Your task to perform on an android device: Go to Google Image 0: 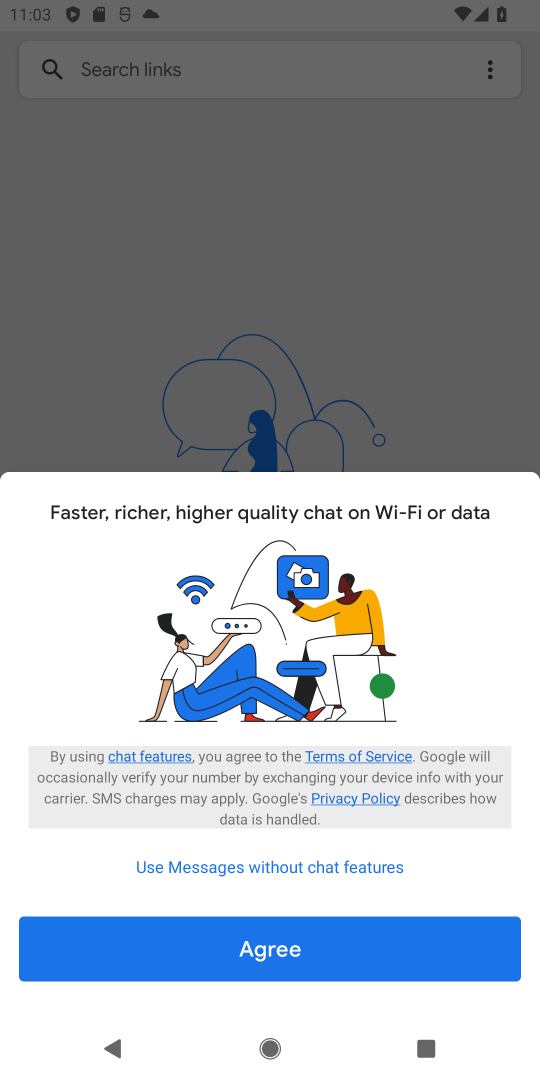
Step 0: press home button
Your task to perform on an android device: Go to Google Image 1: 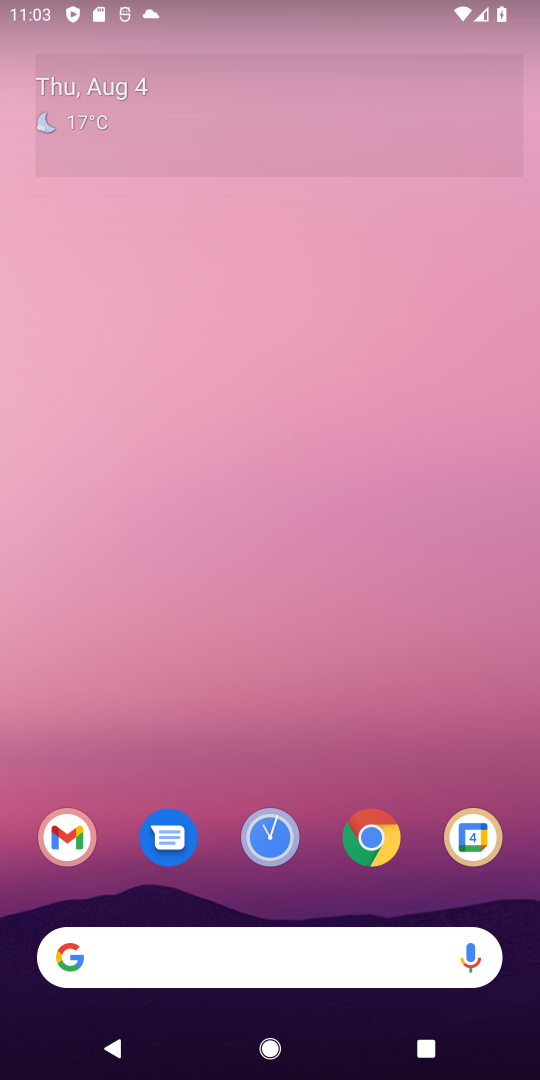
Step 1: drag from (445, 872) to (208, 10)
Your task to perform on an android device: Go to Google Image 2: 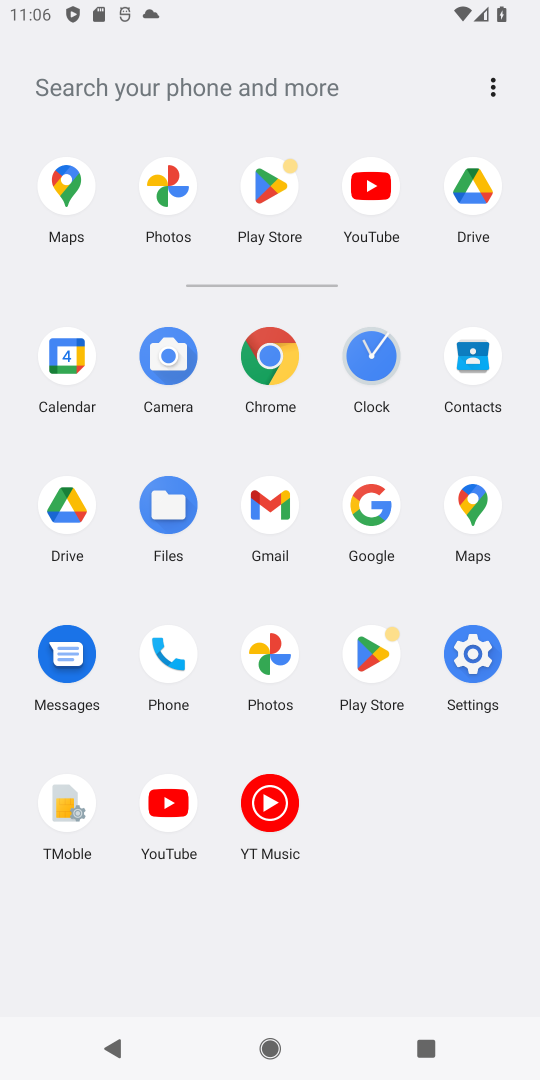
Step 2: click (383, 495)
Your task to perform on an android device: Go to Google Image 3: 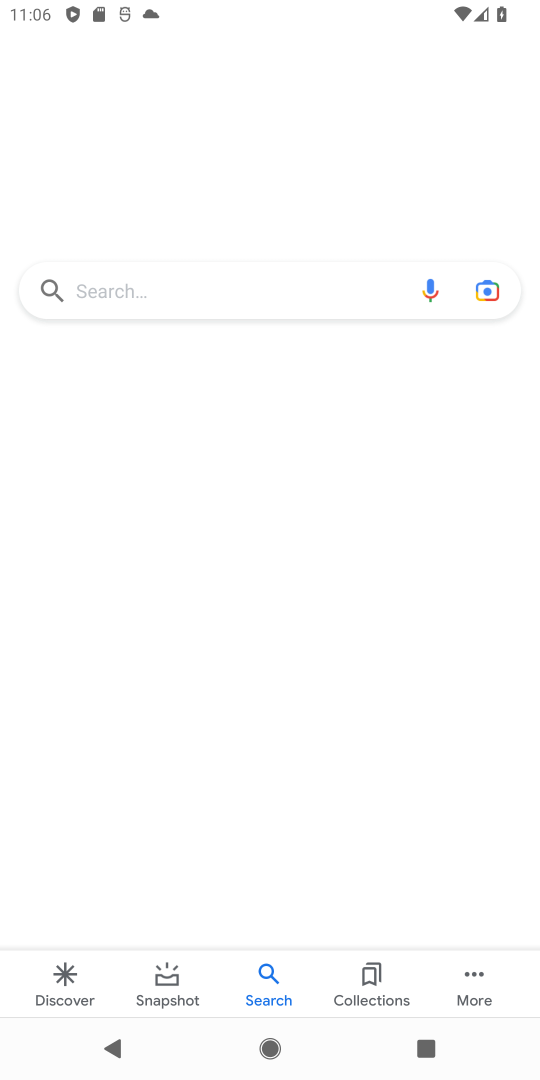
Step 3: task complete